Your task to perform on an android device: check google app version Image 0: 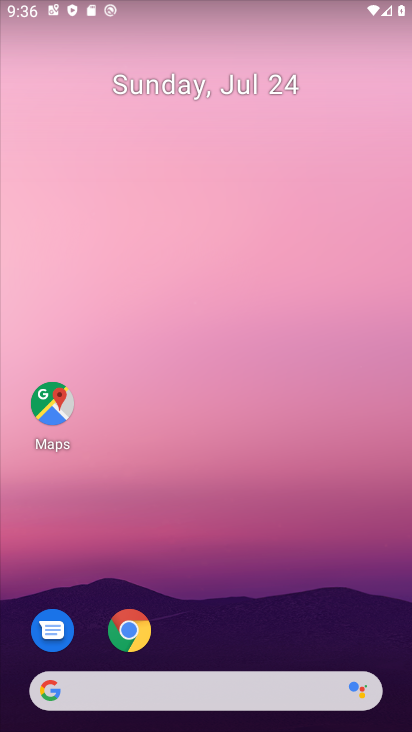
Step 0: drag from (247, 661) to (196, 119)
Your task to perform on an android device: check google app version Image 1: 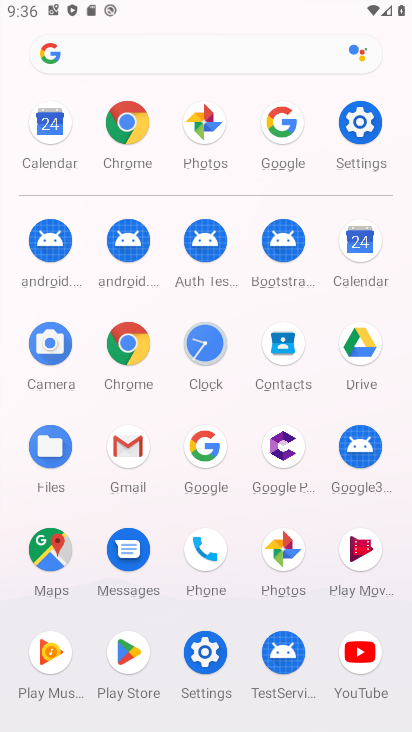
Step 1: click (261, 132)
Your task to perform on an android device: check google app version Image 2: 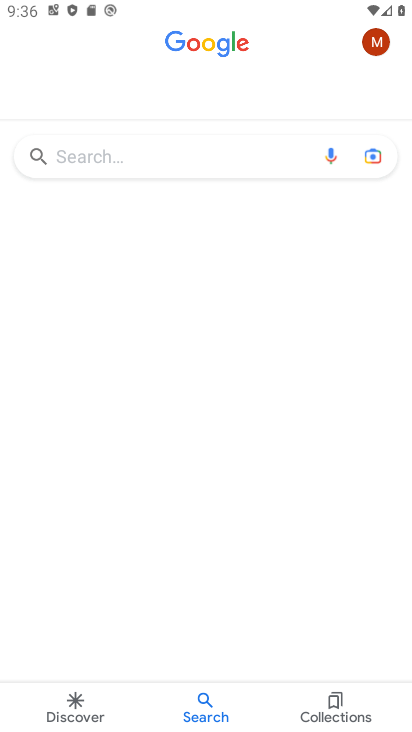
Step 2: click (379, 36)
Your task to perform on an android device: check google app version Image 3: 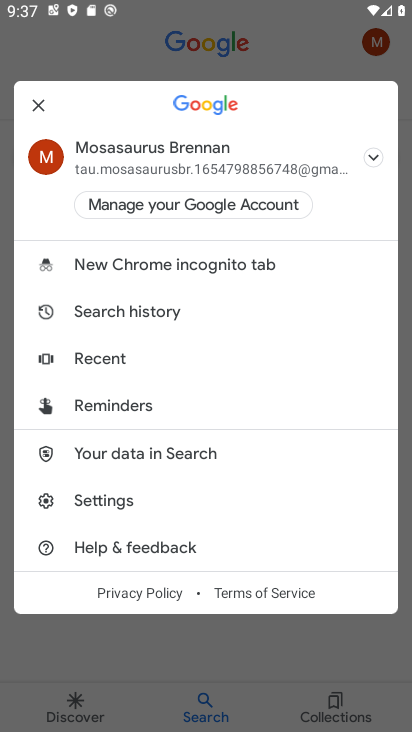
Step 3: click (99, 492)
Your task to perform on an android device: check google app version Image 4: 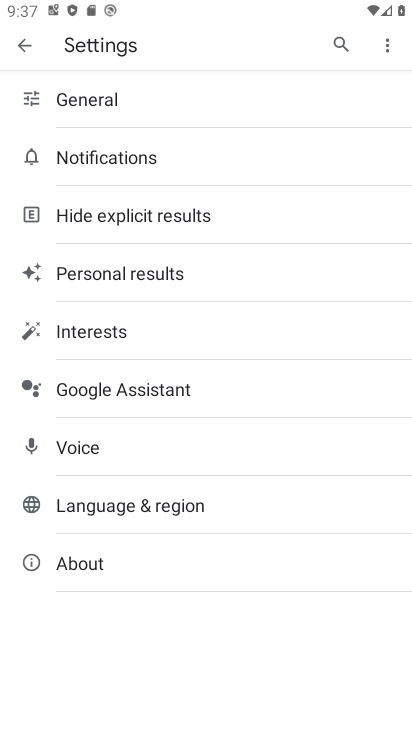
Step 4: click (116, 571)
Your task to perform on an android device: check google app version Image 5: 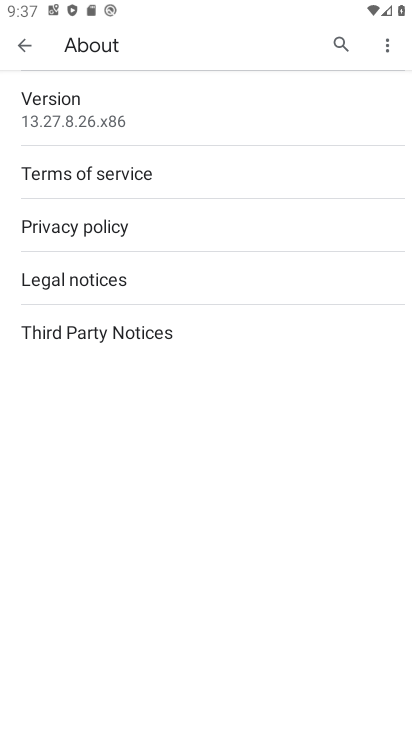
Step 5: click (78, 120)
Your task to perform on an android device: check google app version Image 6: 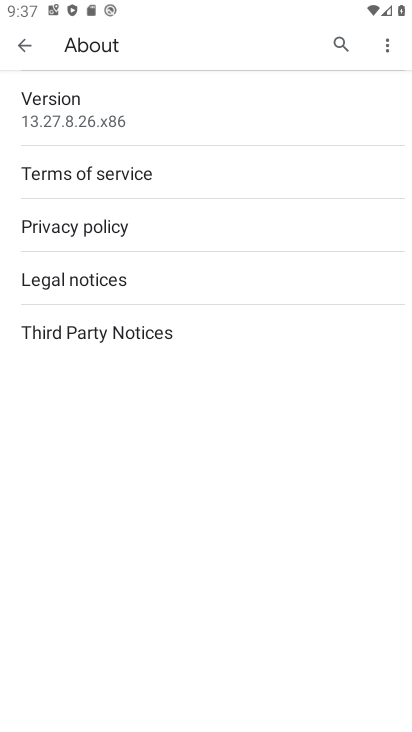
Step 6: task complete